Your task to perform on an android device: turn off javascript in the chrome app Image 0: 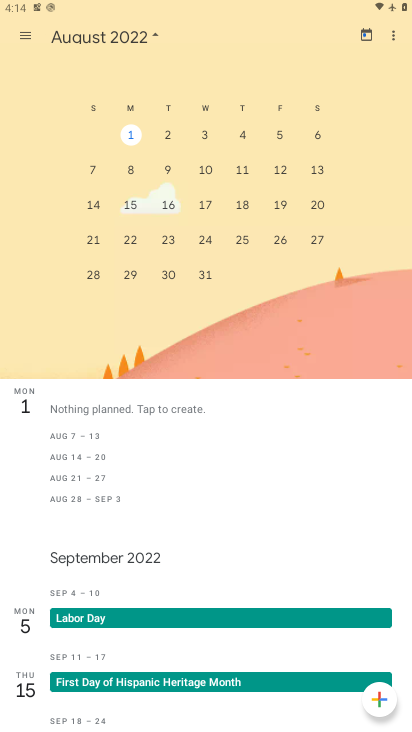
Step 0: press home button
Your task to perform on an android device: turn off javascript in the chrome app Image 1: 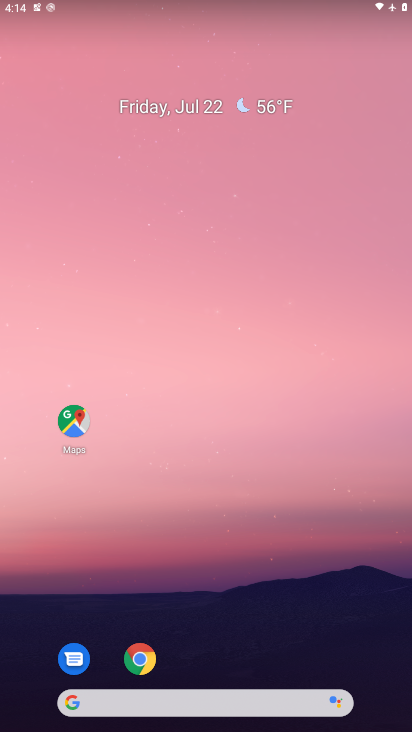
Step 1: click (138, 654)
Your task to perform on an android device: turn off javascript in the chrome app Image 2: 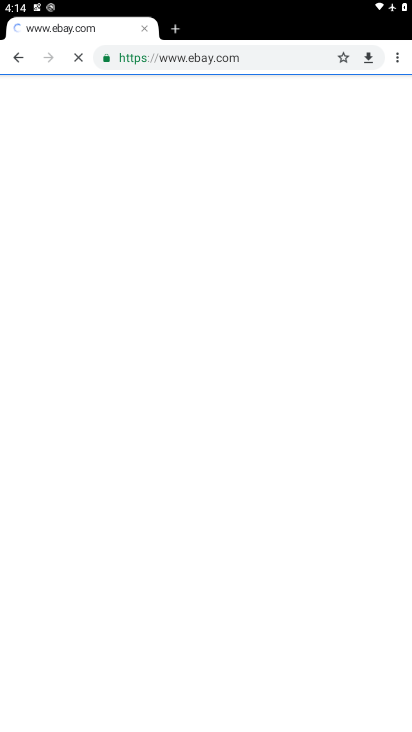
Step 2: click (394, 62)
Your task to perform on an android device: turn off javascript in the chrome app Image 3: 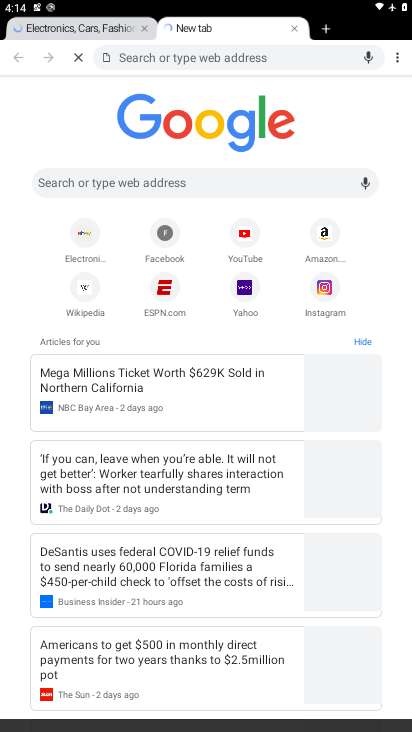
Step 3: click (395, 58)
Your task to perform on an android device: turn off javascript in the chrome app Image 4: 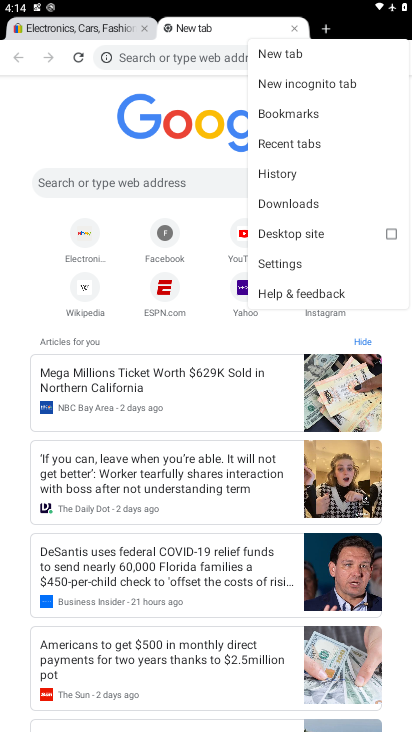
Step 4: click (298, 258)
Your task to perform on an android device: turn off javascript in the chrome app Image 5: 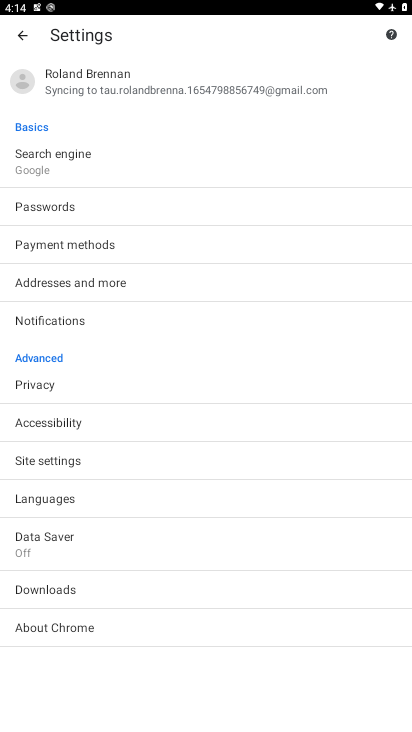
Step 5: click (46, 455)
Your task to perform on an android device: turn off javascript in the chrome app Image 6: 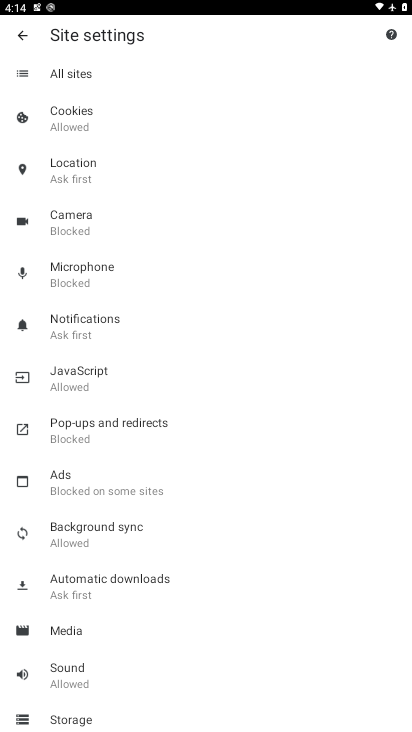
Step 6: click (105, 375)
Your task to perform on an android device: turn off javascript in the chrome app Image 7: 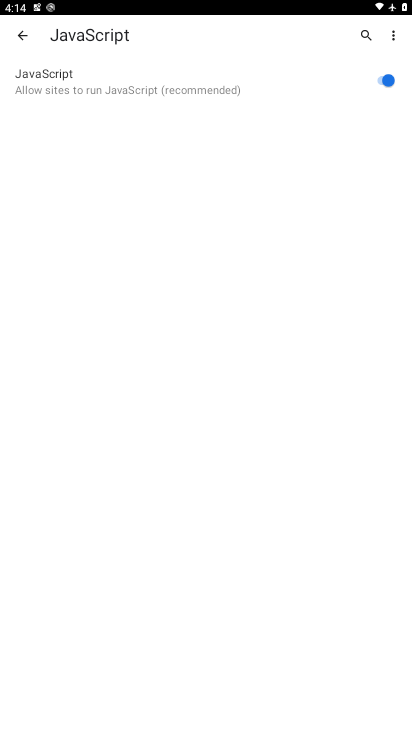
Step 7: click (375, 75)
Your task to perform on an android device: turn off javascript in the chrome app Image 8: 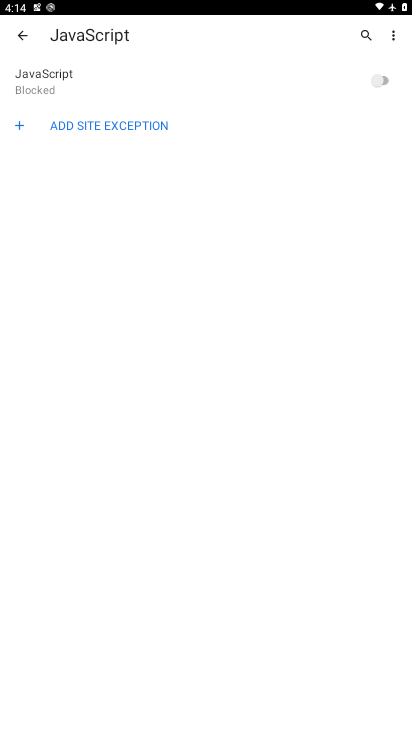
Step 8: task complete